Your task to perform on an android device: set the timer Image 0: 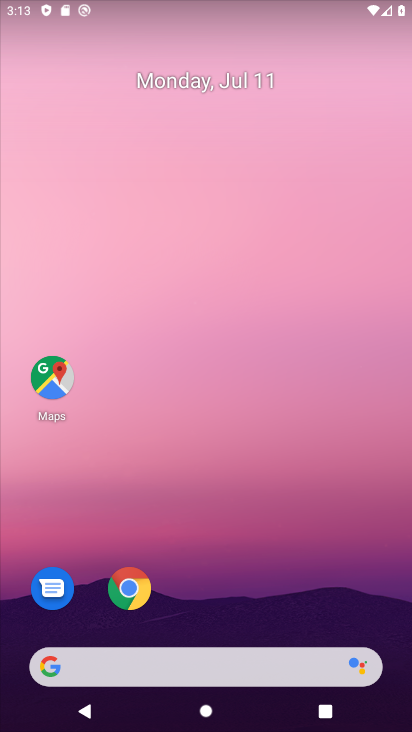
Step 0: drag from (252, 183) to (324, 12)
Your task to perform on an android device: set the timer Image 1: 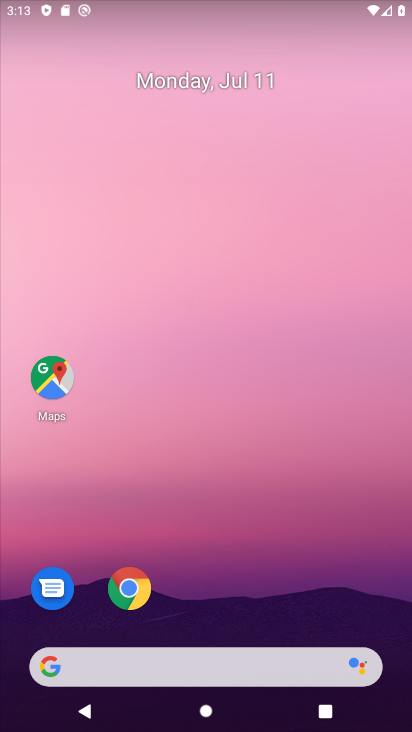
Step 1: drag from (258, 621) to (270, 0)
Your task to perform on an android device: set the timer Image 2: 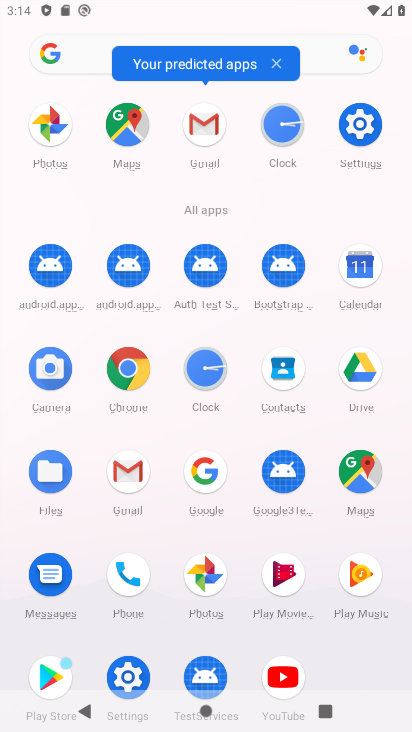
Step 2: click (286, 130)
Your task to perform on an android device: set the timer Image 3: 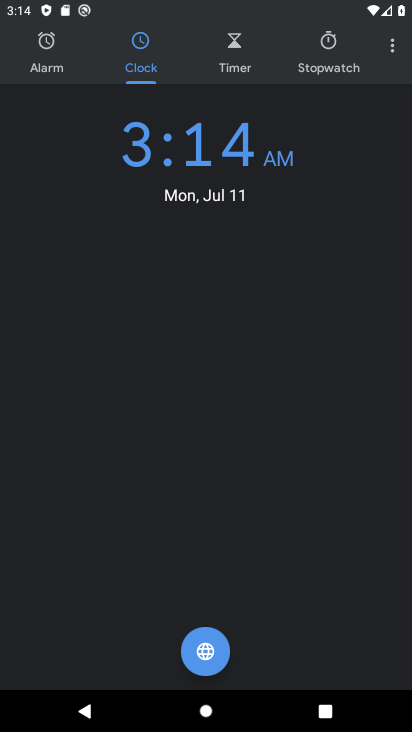
Step 3: click (321, 44)
Your task to perform on an android device: set the timer Image 4: 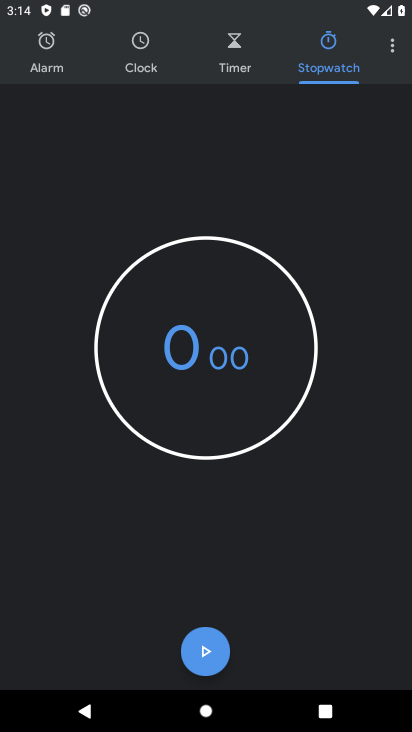
Step 4: click (232, 56)
Your task to perform on an android device: set the timer Image 5: 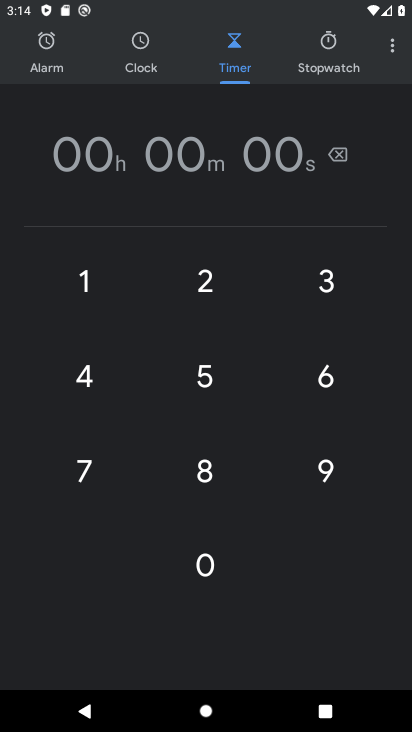
Step 5: click (210, 478)
Your task to perform on an android device: set the timer Image 6: 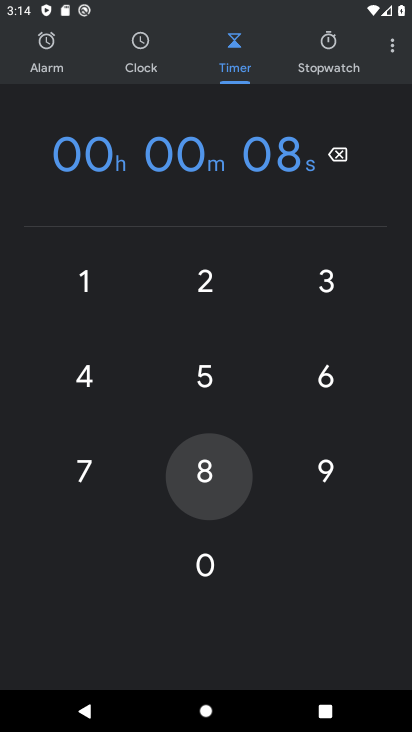
Step 6: click (210, 478)
Your task to perform on an android device: set the timer Image 7: 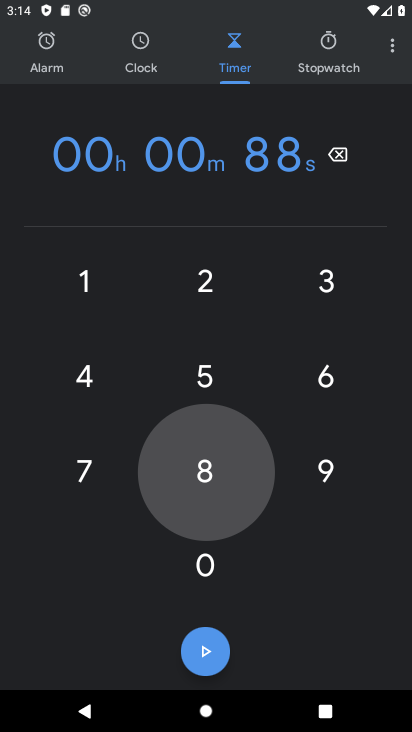
Step 7: click (210, 478)
Your task to perform on an android device: set the timer Image 8: 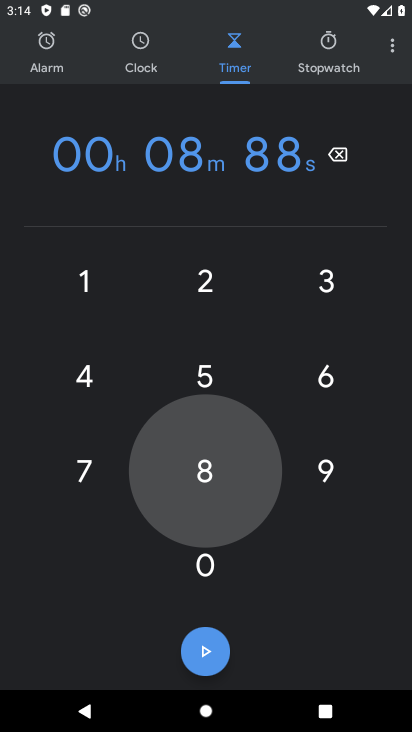
Step 8: click (210, 478)
Your task to perform on an android device: set the timer Image 9: 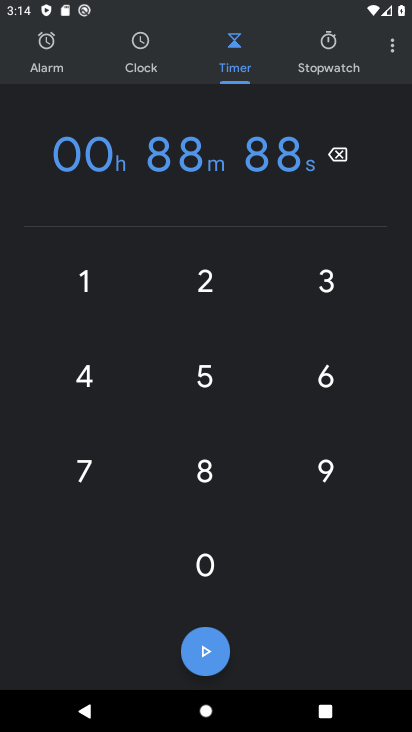
Step 9: click (210, 478)
Your task to perform on an android device: set the timer Image 10: 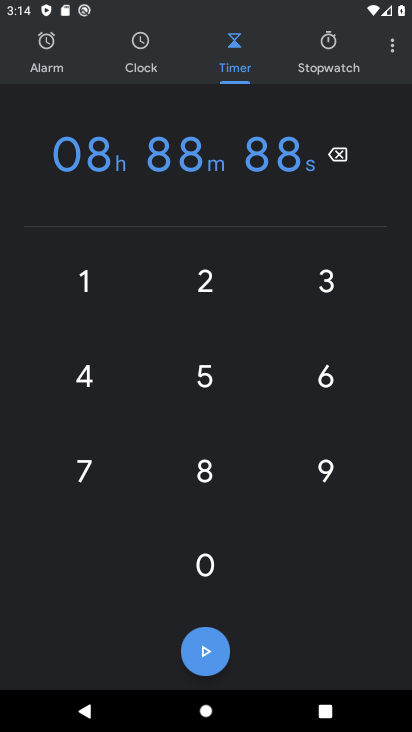
Step 10: click (210, 478)
Your task to perform on an android device: set the timer Image 11: 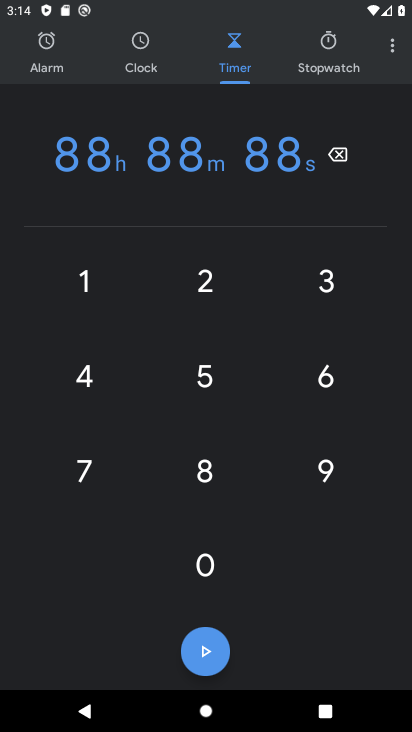
Step 11: click (212, 664)
Your task to perform on an android device: set the timer Image 12: 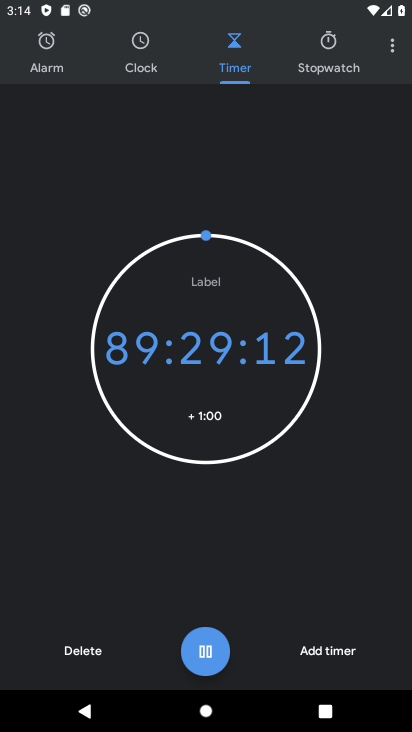
Step 12: task complete